Your task to perform on an android device: Go to Maps Image 0: 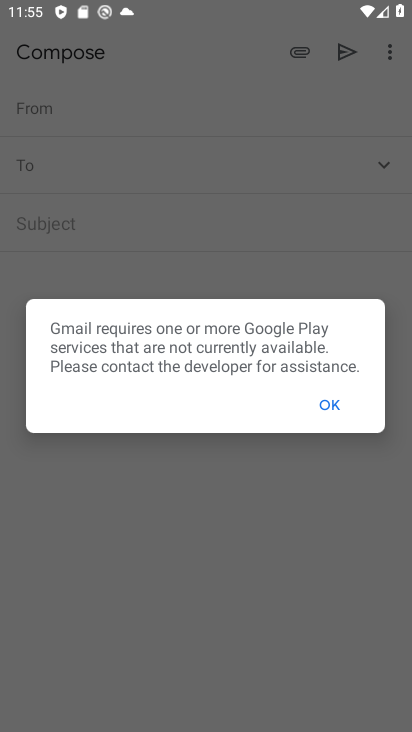
Step 0: click (373, 321)
Your task to perform on an android device: Go to Maps Image 1: 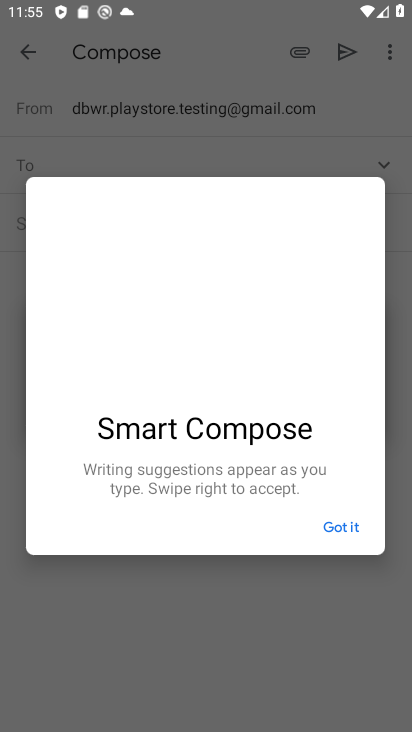
Step 1: press home button
Your task to perform on an android device: Go to Maps Image 2: 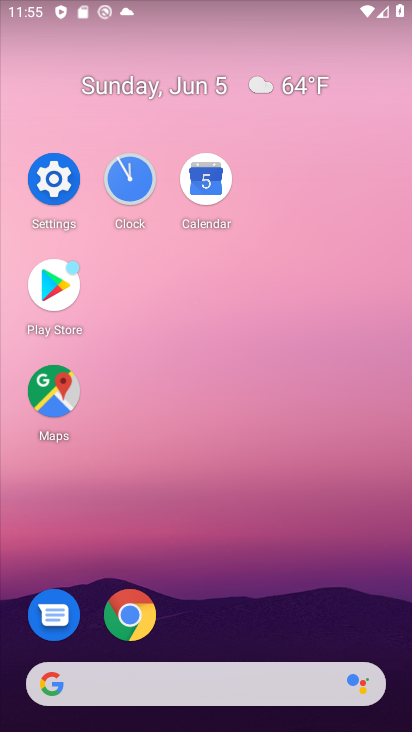
Step 2: click (63, 382)
Your task to perform on an android device: Go to Maps Image 3: 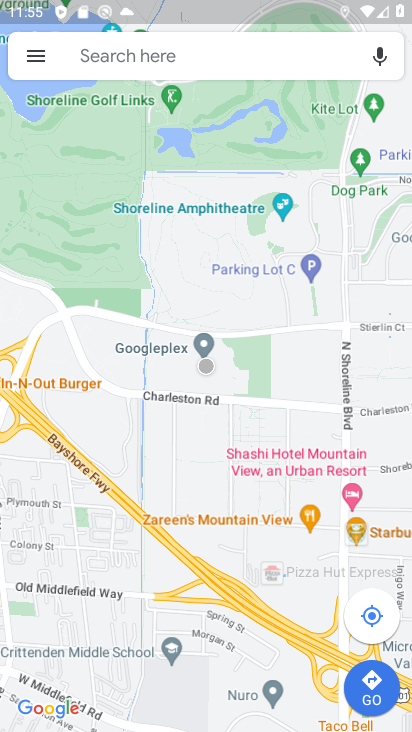
Step 3: task complete